Your task to perform on an android device: turn on priority inbox in the gmail app Image 0: 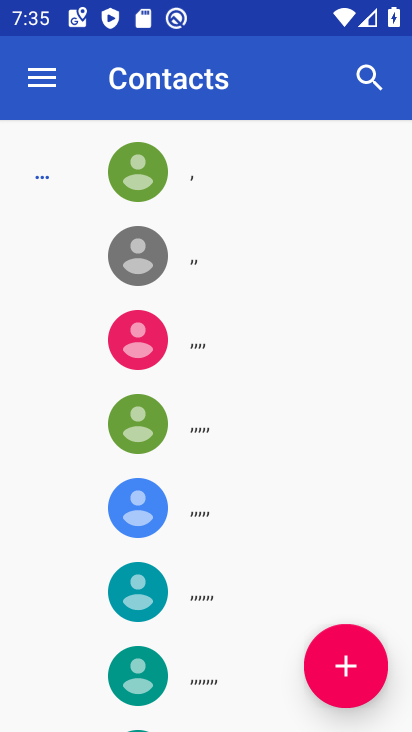
Step 0: press home button
Your task to perform on an android device: turn on priority inbox in the gmail app Image 1: 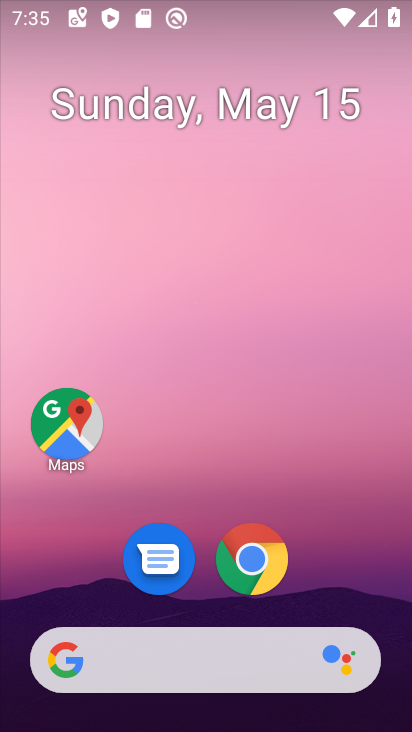
Step 1: drag from (323, 565) to (359, 147)
Your task to perform on an android device: turn on priority inbox in the gmail app Image 2: 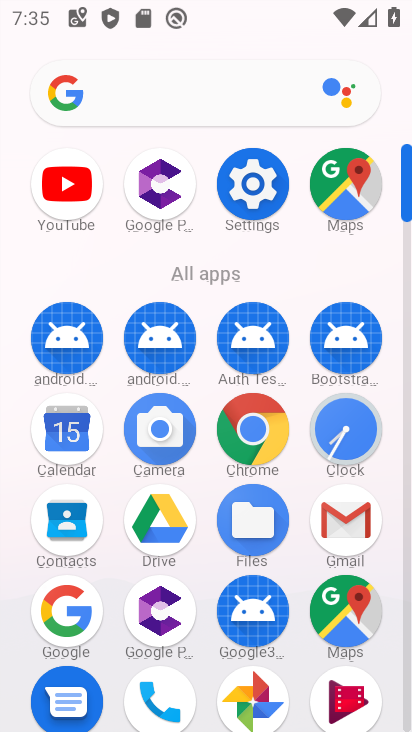
Step 2: click (343, 543)
Your task to perform on an android device: turn on priority inbox in the gmail app Image 3: 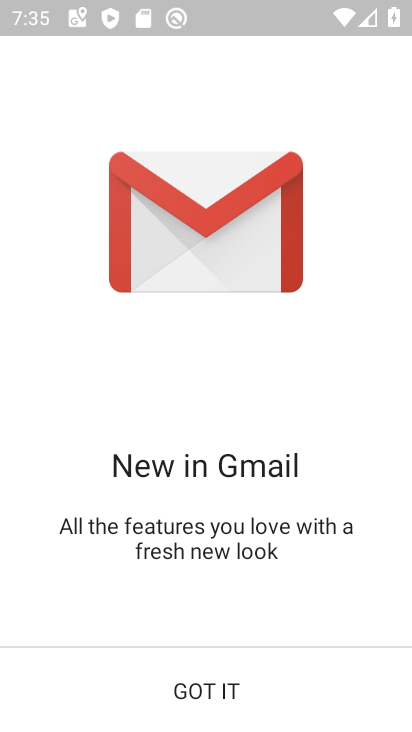
Step 3: click (222, 688)
Your task to perform on an android device: turn on priority inbox in the gmail app Image 4: 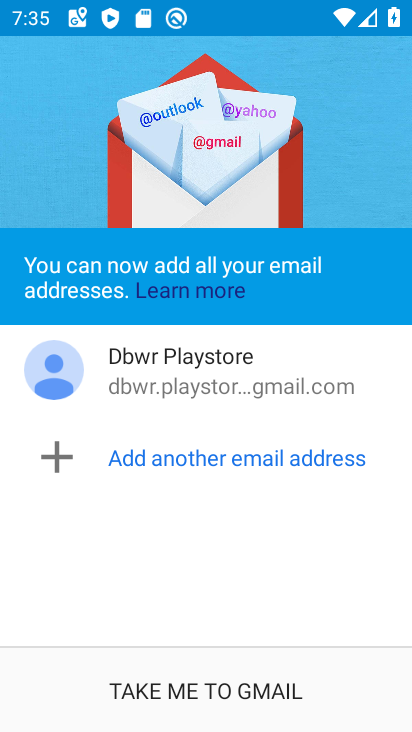
Step 4: click (222, 688)
Your task to perform on an android device: turn on priority inbox in the gmail app Image 5: 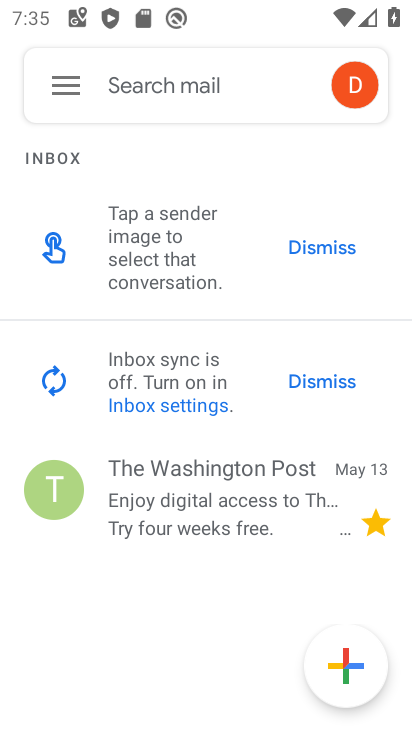
Step 5: click (78, 78)
Your task to perform on an android device: turn on priority inbox in the gmail app Image 6: 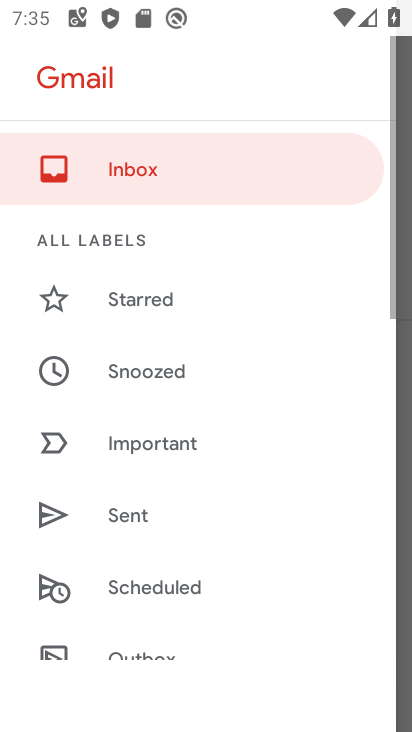
Step 6: drag from (114, 539) to (172, 241)
Your task to perform on an android device: turn on priority inbox in the gmail app Image 7: 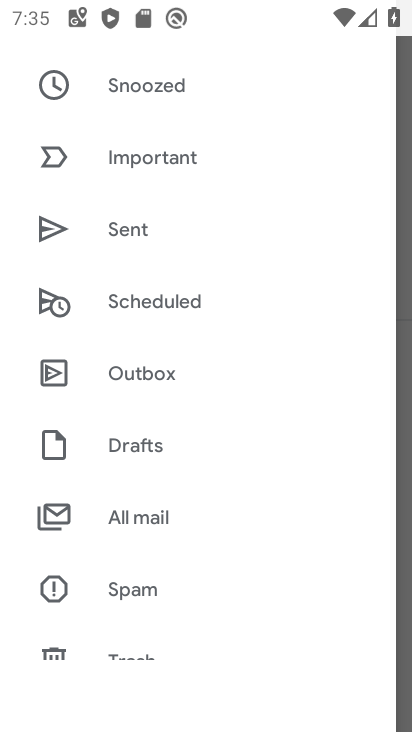
Step 7: drag from (206, 599) to (236, 395)
Your task to perform on an android device: turn on priority inbox in the gmail app Image 8: 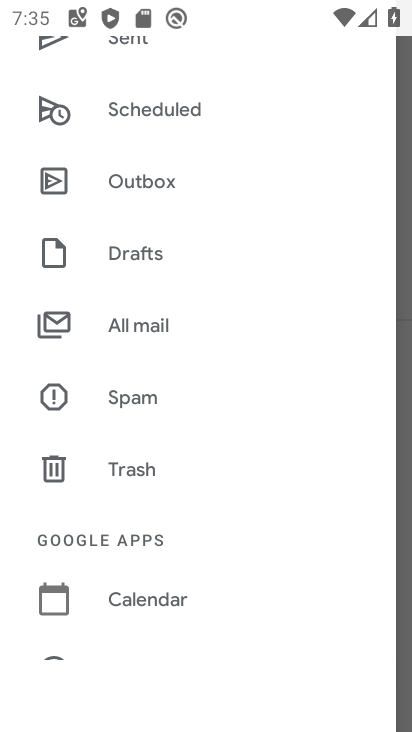
Step 8: drag from (193, 571) to (203, 472)
Your task to perform on an android device: turn on priority inbox in the gmail app Image 9: 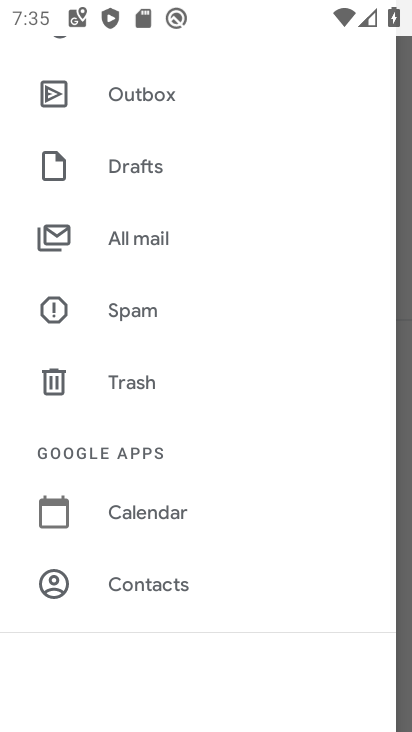
Step 9: drag from (168, 585) to (223, 233)
Your task to perform on an android device: turn on priority inbox in the gmail app Image 10: 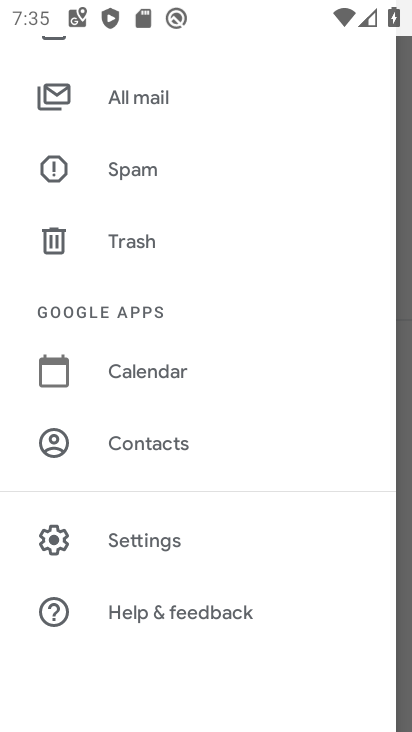
Step 10: click (160, 537)
Your task to perform on an android device: turn on priority inbox in the gmail app Image 11: 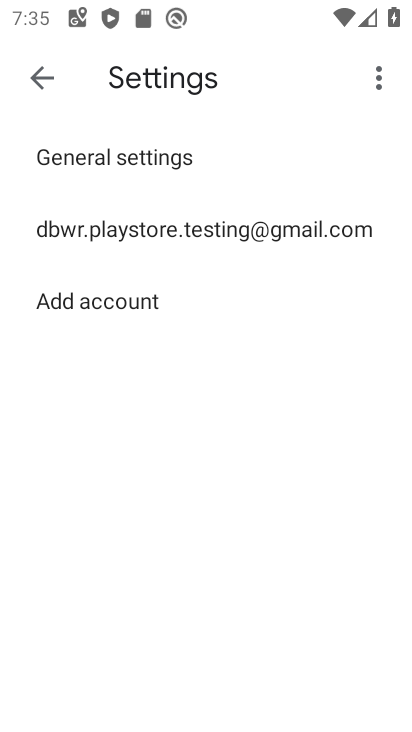
Step 11: click (164, 233)
Your task to perform on an android device: turn on priority inbox in the gmail app Image 12: 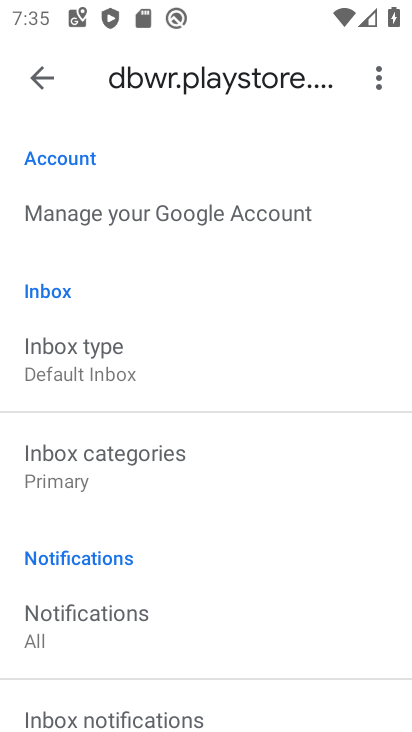
Step 12: drag from (94, 536) to (128, 451)
Your task to perform on an android device: turn on priority inbox in the gmail app Image 13: 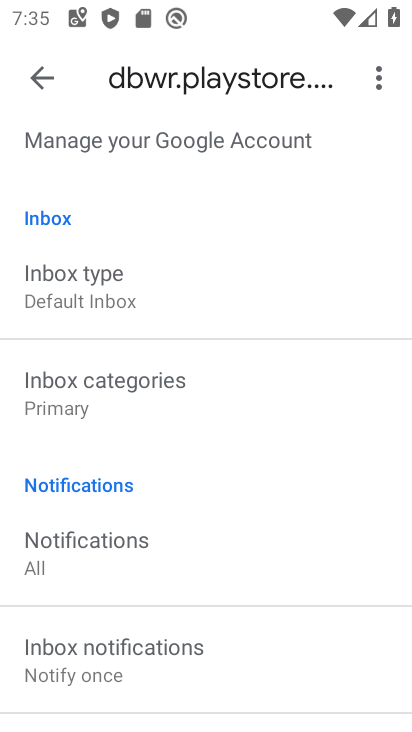
Step 13: click (150, 301)
Your task to perform on an android device: turn on priority inbox in the gmail app Image 14: 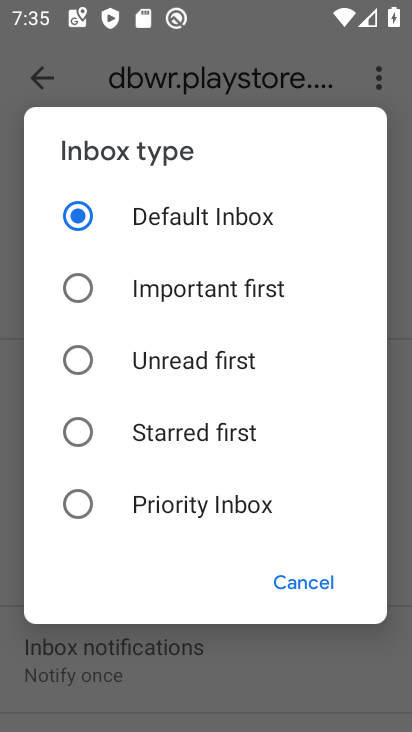
Step 14: click (156, 510)
Your task to perform on an android device: turn on priority inbox in the gmail app Image 15: 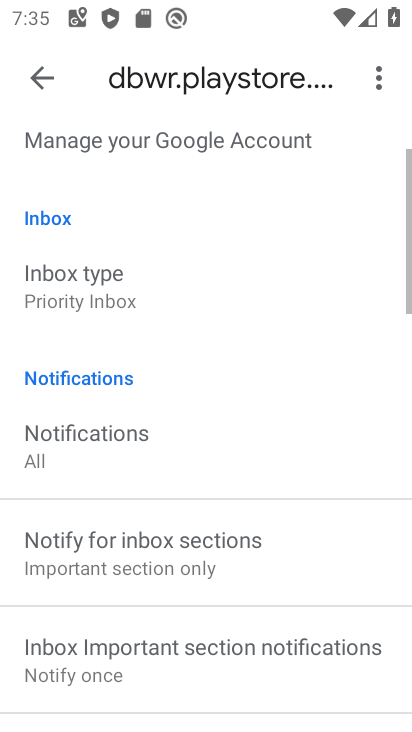
Step 15: task complete